Your task to perform on an android device: Open calendar and show me the second week of next month Image 0: 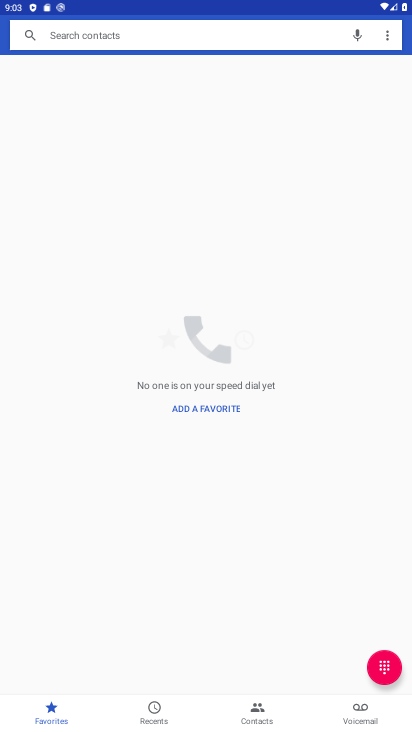
Step 0: press home button
Your task to perform on an android device: Open calendar and show me the second week of next month Image 1: 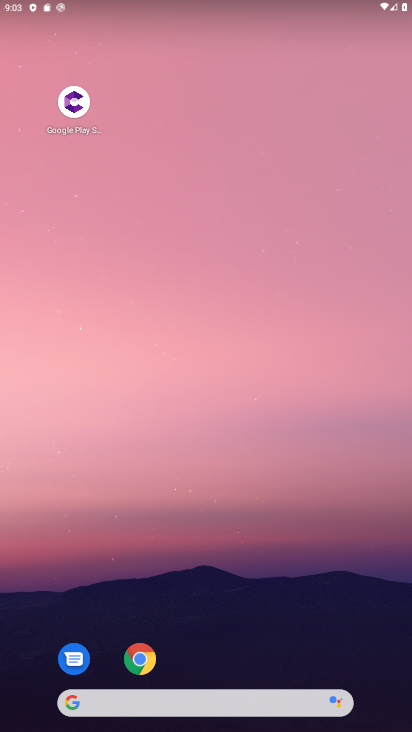
Step 1: drag from (236, 633) to (256, 227)
Your task to perform on an android device: Open calendar and show me the second week of next month Image 2: 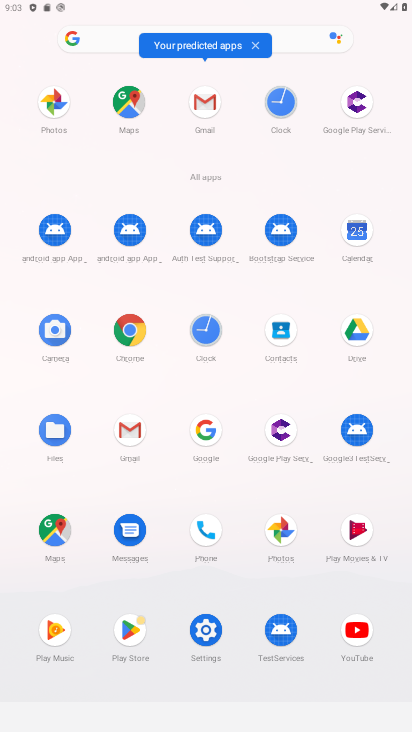
Step 2: click (354, 238)
Your task to perform on an android device: Open calendar and show me the second week of next month Image 3: 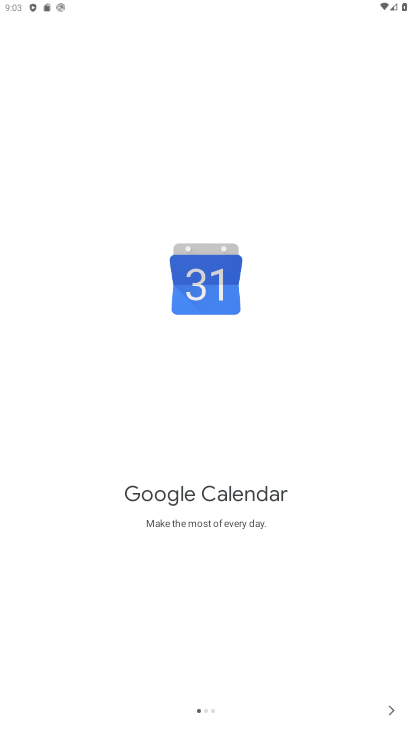
Step 3: click (386, 707)
Your task to perform on an android device: Open calendar and show me the second week of next month Image 4: 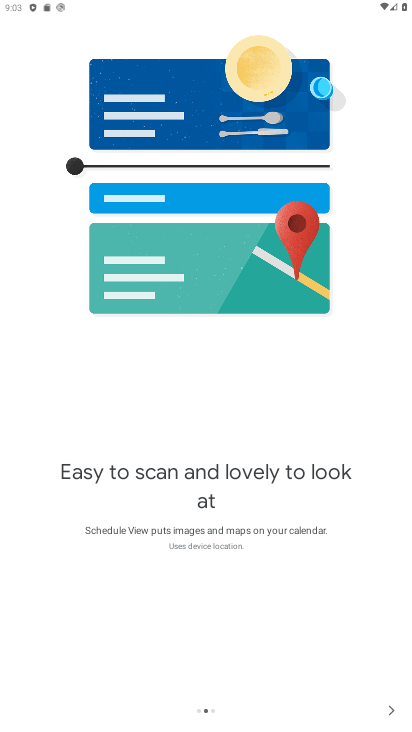
Step 4: click (379, 707)
Your task to perform on an android device: Open calendar and show me the second week of next month Image 5: 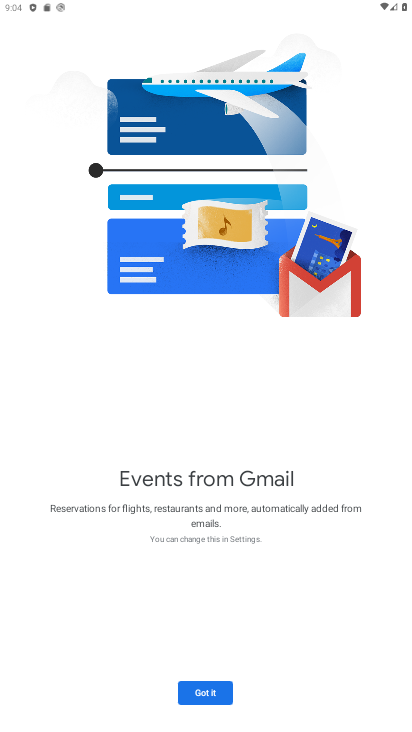
Step 5: click (206, 692)
Your task to perform on an android device: Open calendar and show me the second week of next month Image 6: 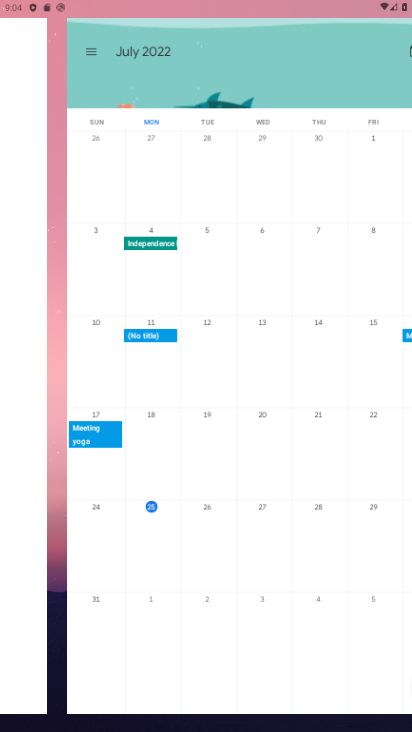
Step 6: click (222, 697)
Your task to perform on an android device: Open calendar and show me the second week of next month Image 7: 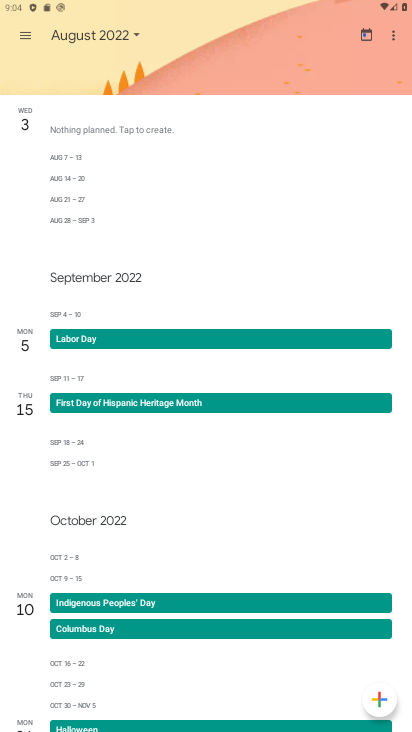
Step 7: click (26, 37)
Your task to perform on an android device: Open calendar and show me the second week of next month Image 8: 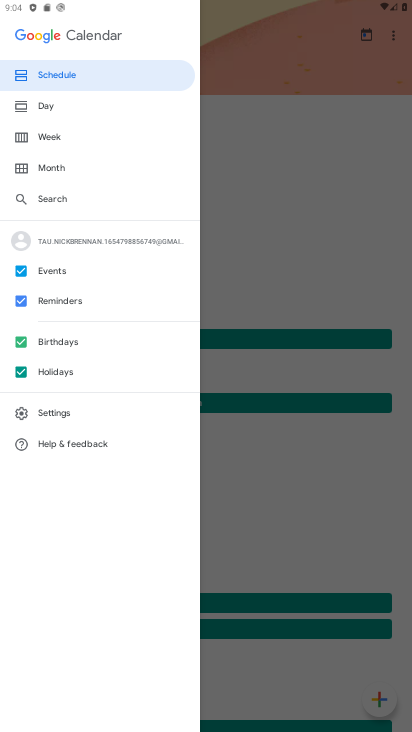
Step 8: click (49, 135)
Your task to perform on an android device: Open calendar and show me the second week of next month Image 9: 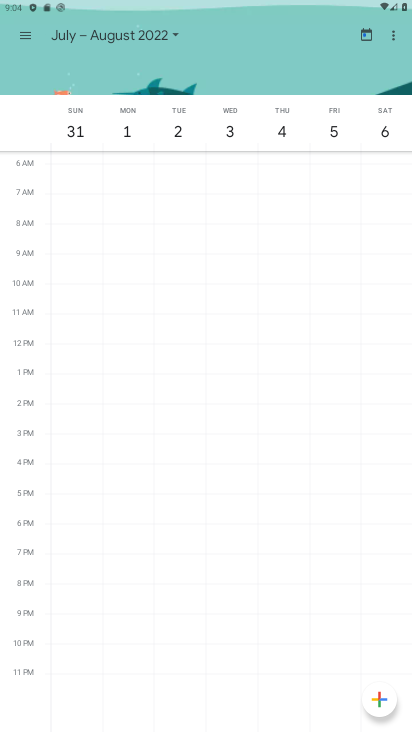
Step 9: task complete